Your task to perform on an android device: stop showing notifications on the lock screen Image 0: 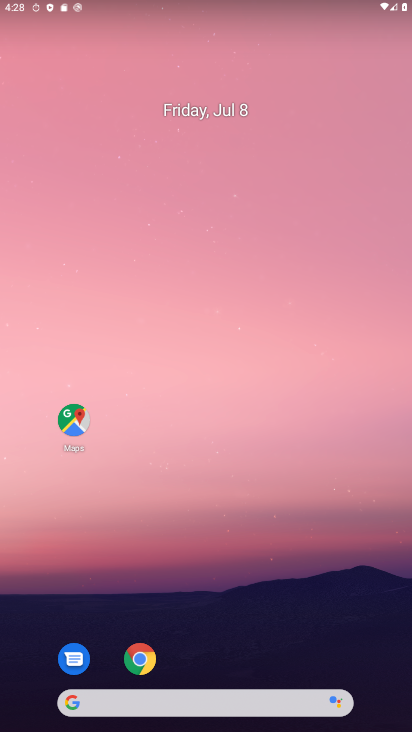
Step 0: drag from (301, 632) to (275, 142)
Your task to perform on an android device: stop showing notifications on the lock screen Image 1: 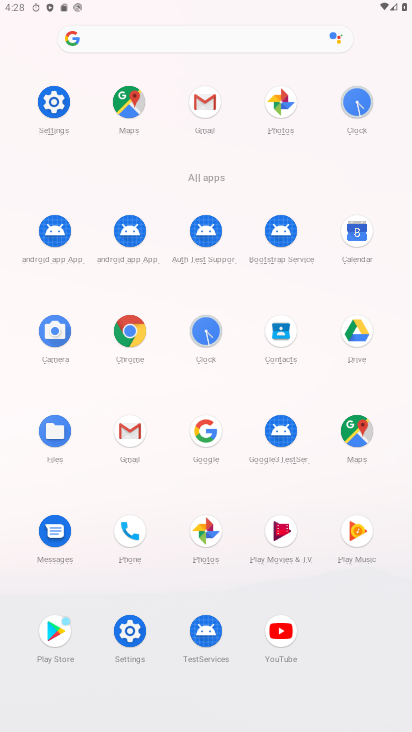
Step 1: click (45, 106)
Your task to perform on an android device: stop showing notifications on the lock screen Image 2: 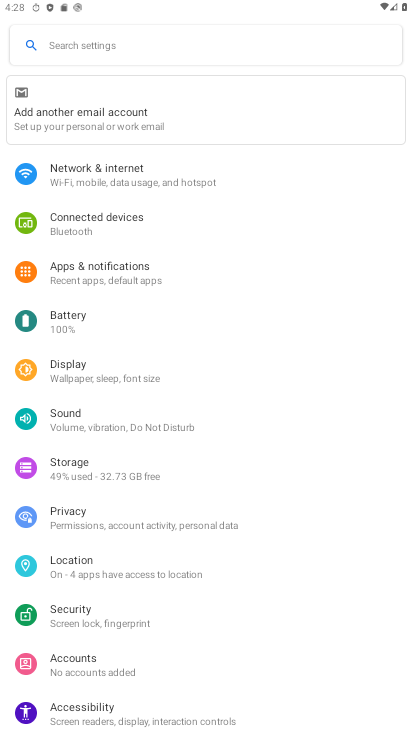
Step 2: click (122, 277)
Your task to perform on an android device: stop showing notifications on the lock screen Image 3: 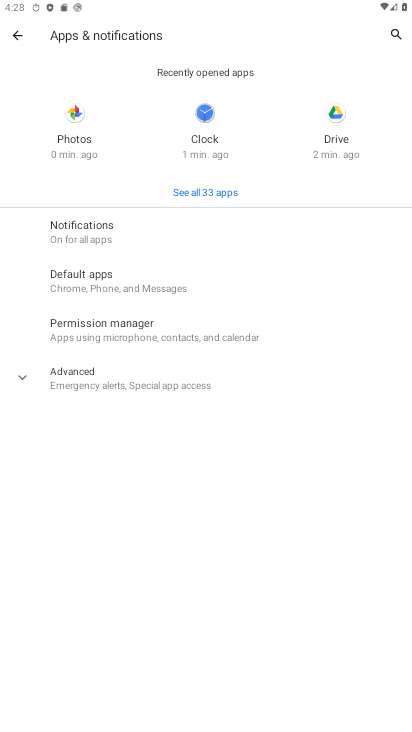
Step 3: click (107, 229)
Your task to perform on an android device: stop showing notifications on the lock screen Image 4: 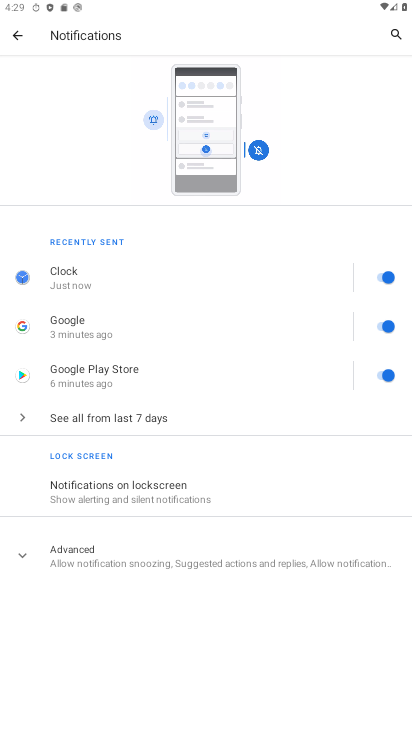
Step 4: click (158, 503)
Your task to perform on an android device: stop showing notifications on the lock screen Image 5: 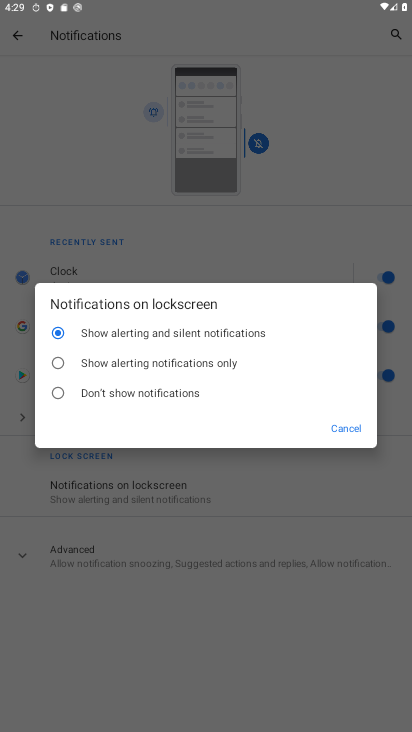
Step 5: click (171, 396)
Your task to perform on an android device: stop showing notifications on the lock screen Image 6: 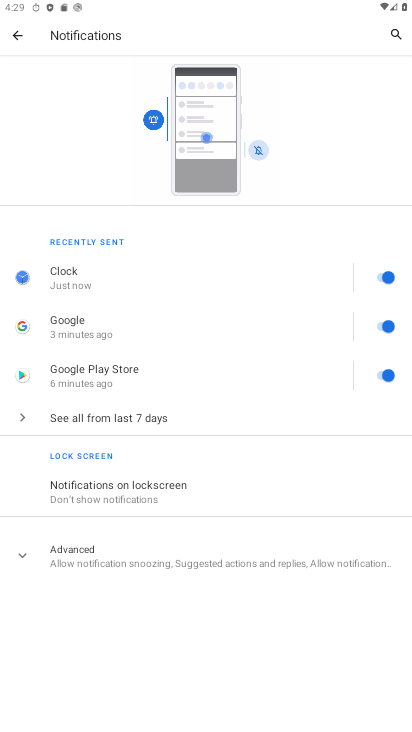
Step 6: task complete